Your task to perform on an android device: Do I have any events this weekend? Image 0: 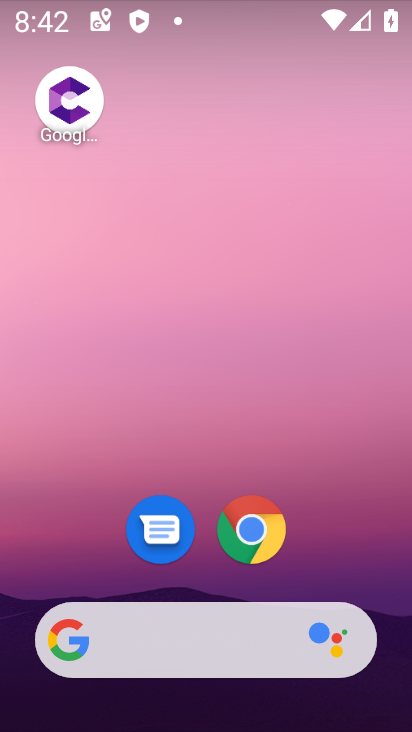
Step 0: drag from (333, 561) to (361, 216)
Your task to perform on an android device: Do I have any events this weekend? Image 1: 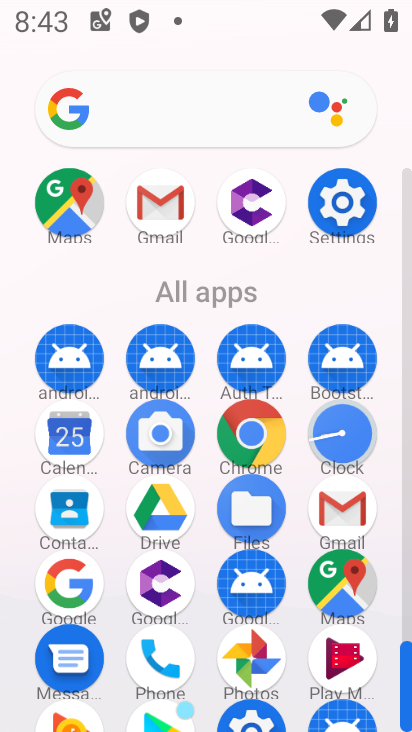
Step 1: click (68, 419)
Your task to perform on an android device: Do I have any events this weekend? Image 2: 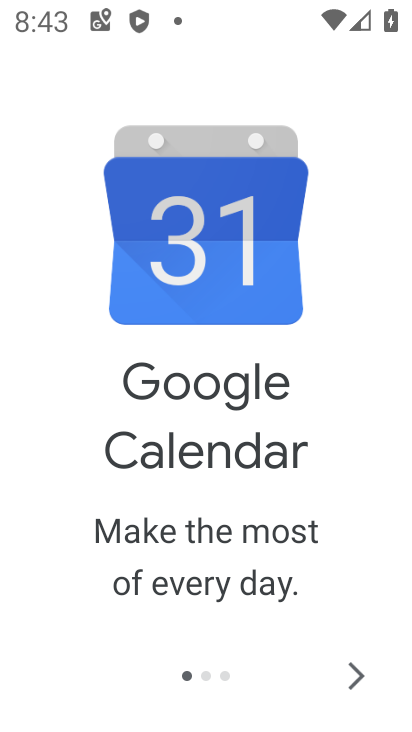
Step 2: click (346, 674)
Your task to perform on an android device: Do I have any events this weekend? Image 3: 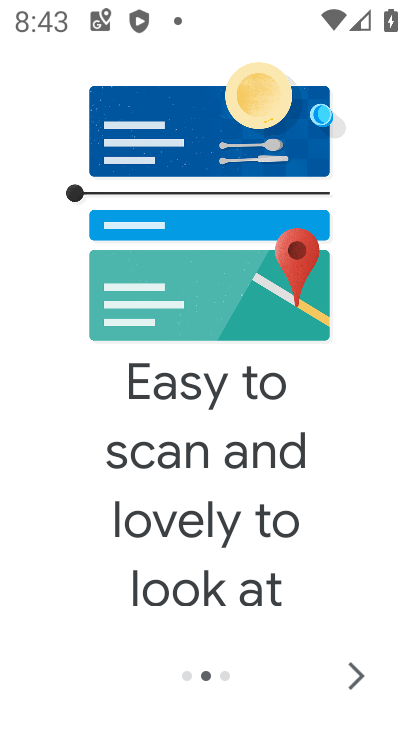
Step 3: click (347, 675)
Your task to perform on an android device: Do I have any events this weekend? Image 4: 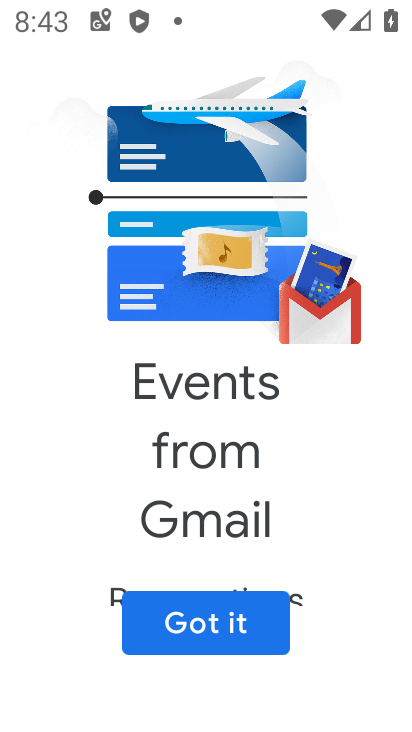
Step 4: click (347, 675)
Your task to perform on an android device: Do I have any events this weekend? Image 5: 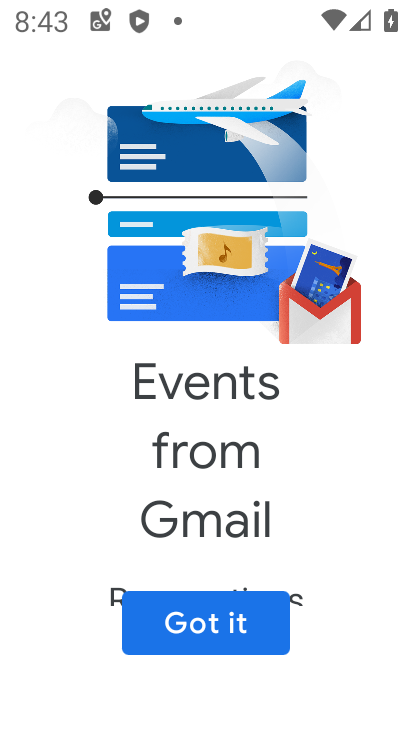
Step 5: click (262, 625)
Your task to perform on an android device: Do I have any events this weekend? Image 6: 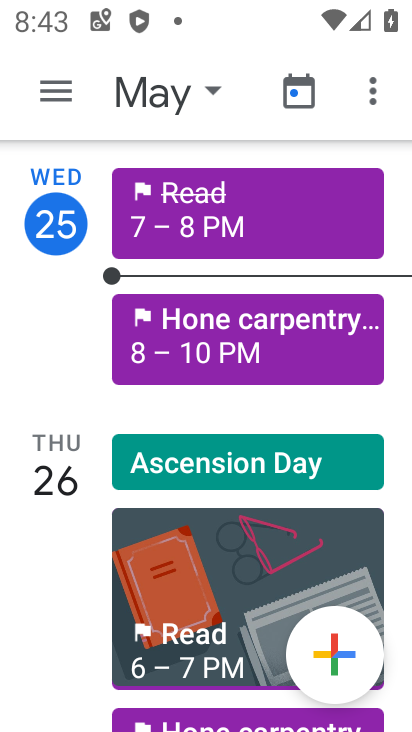
Step 6: click (43, 87)
Your task to perform on an android device: Do I have any events this weekend? Image 7: 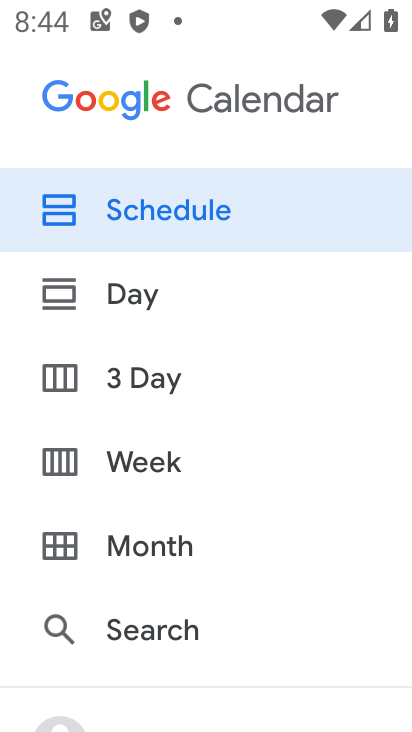
Step 7: click (151, 467)
Your task to perform on an android device: Do I have any events this weekend? Image 8: 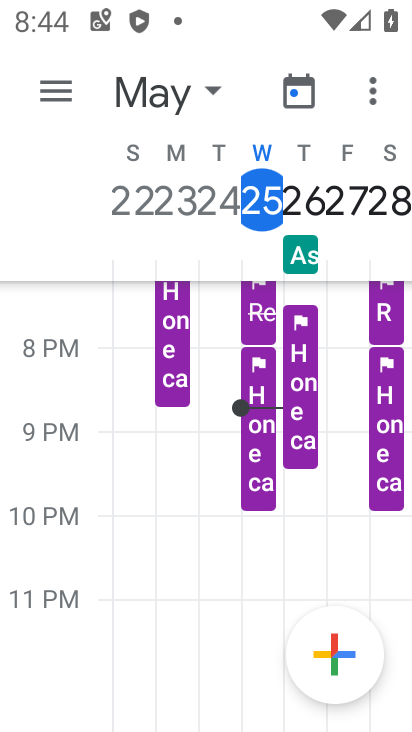
Step 8: click (292, 361)
Your task to perform on an android device: Do I have any events this weekend? Image 9: 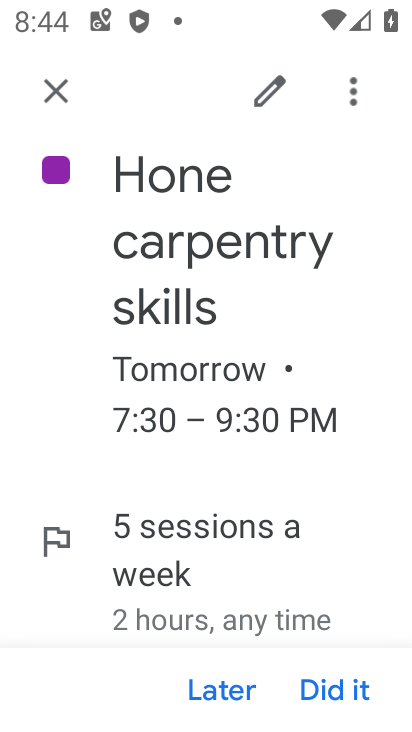
Step 9: task complete